Your task to perform on an android device: Open location settings Image 0: 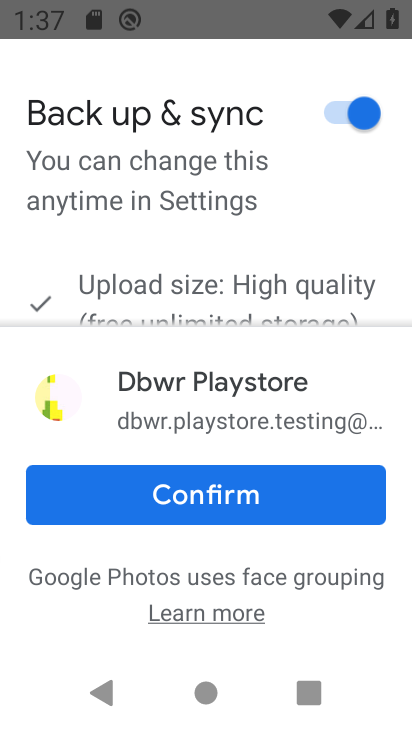
Step 0: press home button
Your task to perform on an android device: Open location settings Image 1: 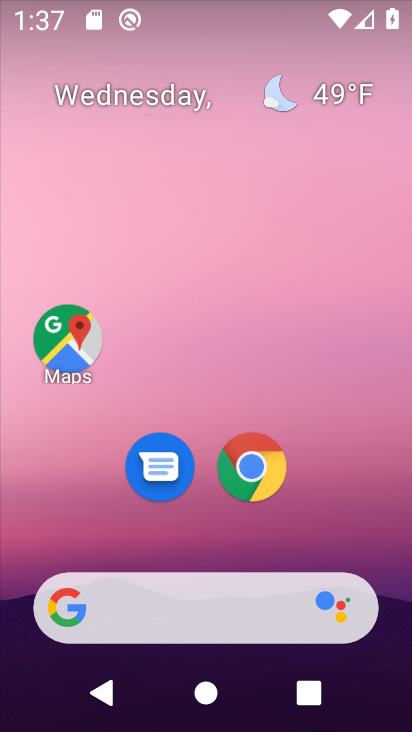
Step 1: drag from (373, 532) to (288, 114)
Your task to perform on an android device: Open location settings Image 2: 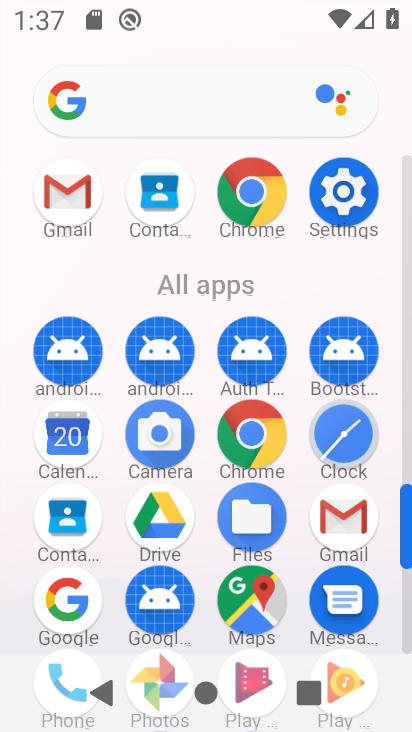
Step 2: click (405, 634)
Your task to perform on an android device: Open location settings Image 3: 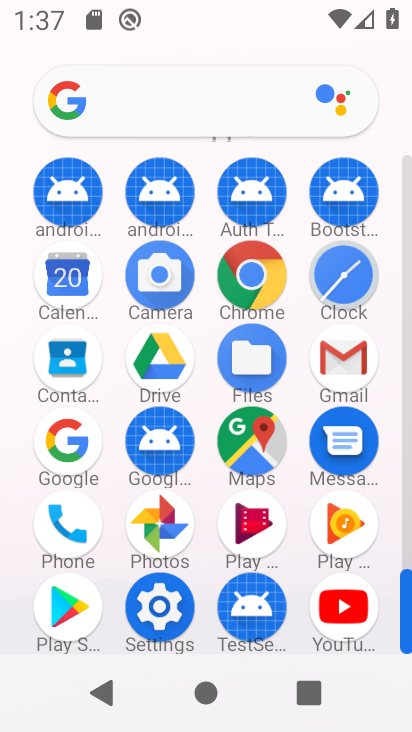
Step 3: click (159, 602)
Your task to perform on an android device: Open location settings Image 4: 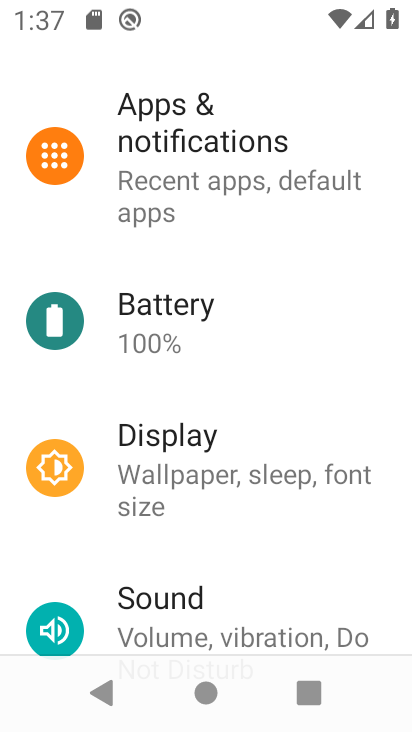
Step 4: drag from (304, 585) to (312, 380)
Your task to perform on an android device: Open location settings Image 5: 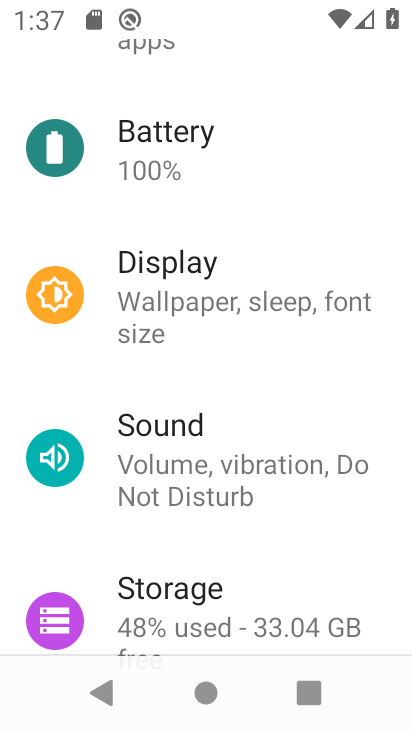
Step 5: drag from (278, 542) to (308, 256)
Your task to perform on an android device: Open location settings Image 6: 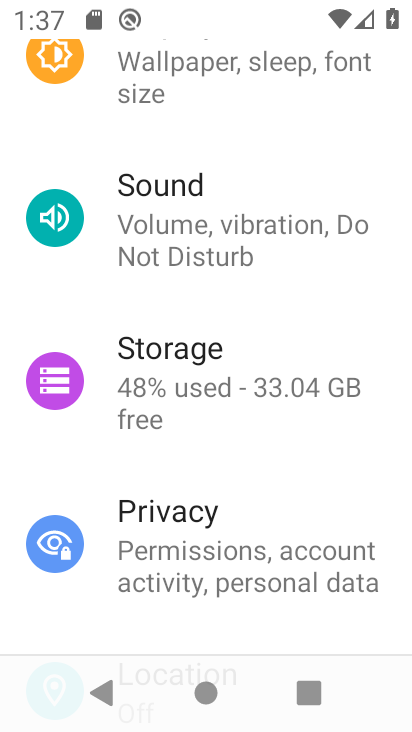
Step 6: drag from (314, 488) to (306, 221)
Your task to perform on an android device: Open location settings Image 7: 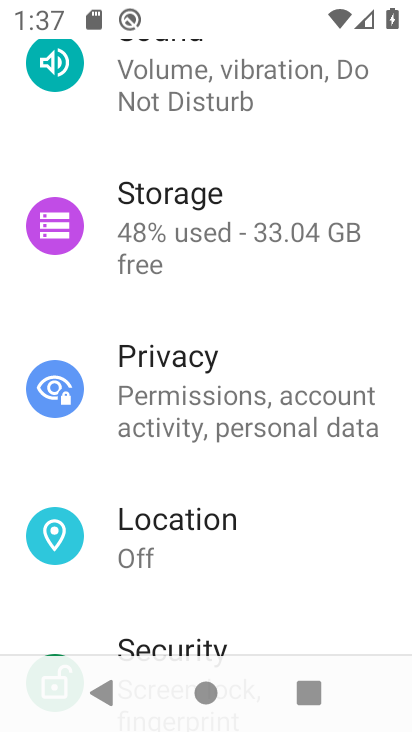
Step 7: click (110, 535)
Your task to perform on an android device: Open location settings Image 8: 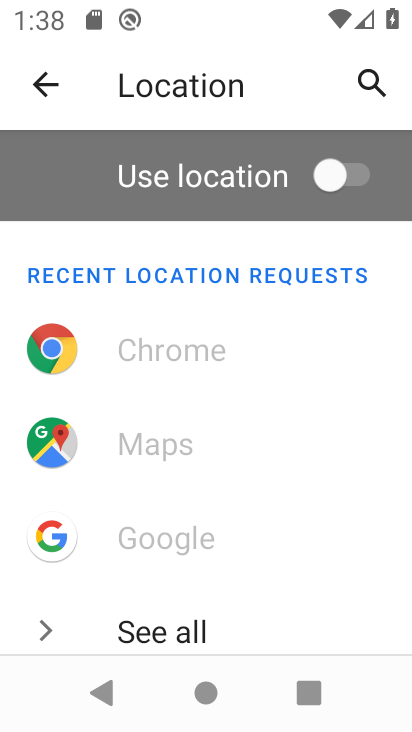
Step 8: task complete